Your task to perform on an android device: Go to Google maps Image 0: 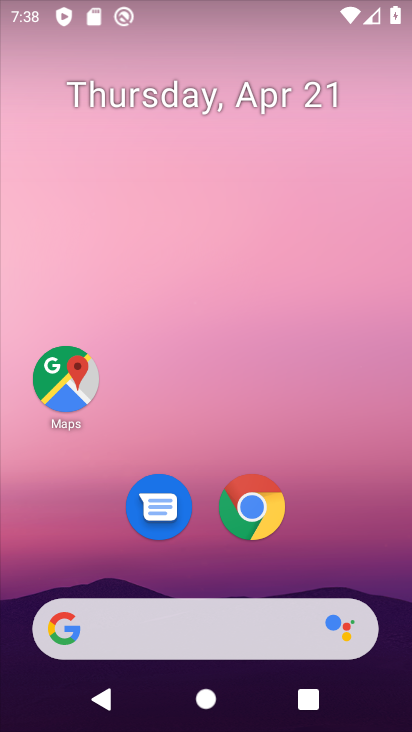
Step 0: drag from (362, 547) to (367, 118)
Your task to perform on an android device: Go to Google maps Image 1: 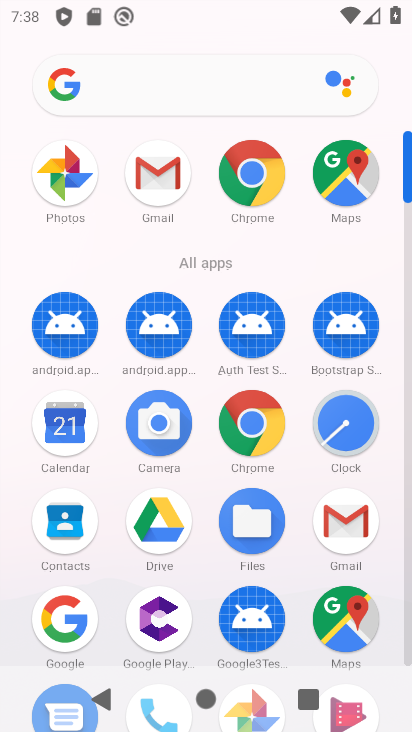
Step 1: drag from (201, 566) to (204, 279)
Your task to perform on an android device: Go to Google maps Image 2: 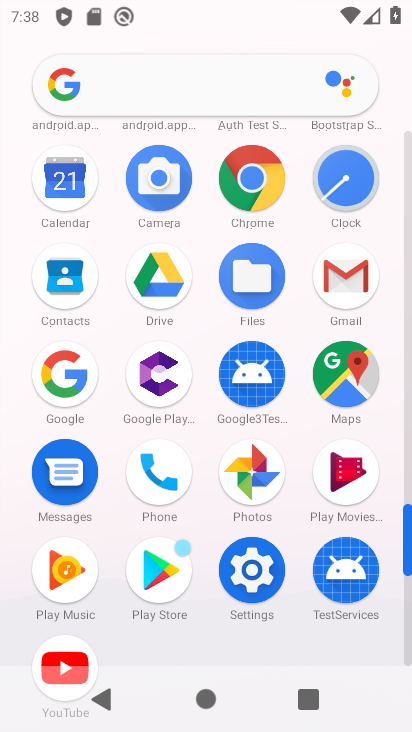
Step 2: click (336, 396)
Your task to perform on an android device: Go to Google maps Image 3: 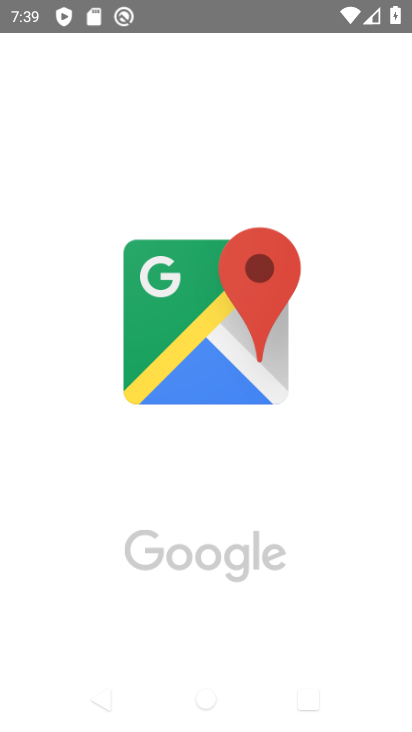
Step 3: task complete